Your task to perform on an android device: Go to eBay Image 0: 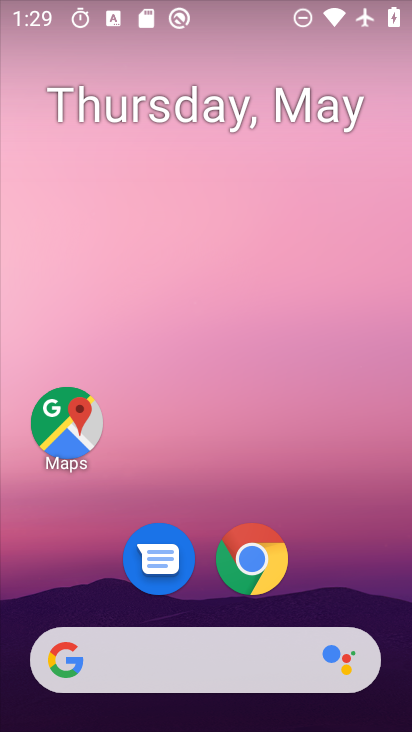
Step 0: click (261, 559)
Your task to perform on an android device: Go to eBay Image 1: 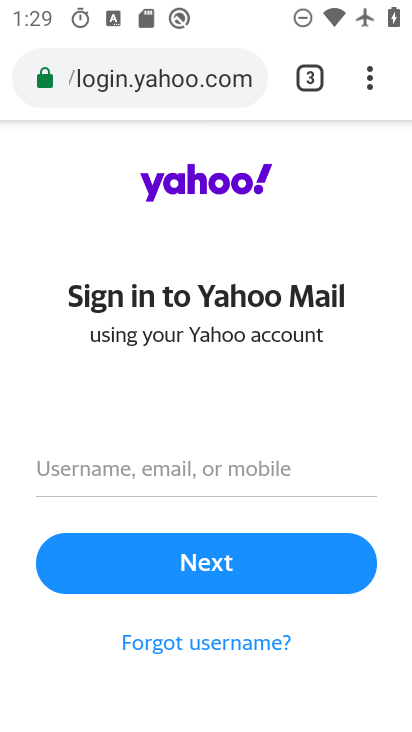
Step 1: click (193, 73)
Your task to perform on an android device: Go to eBay Image 2: 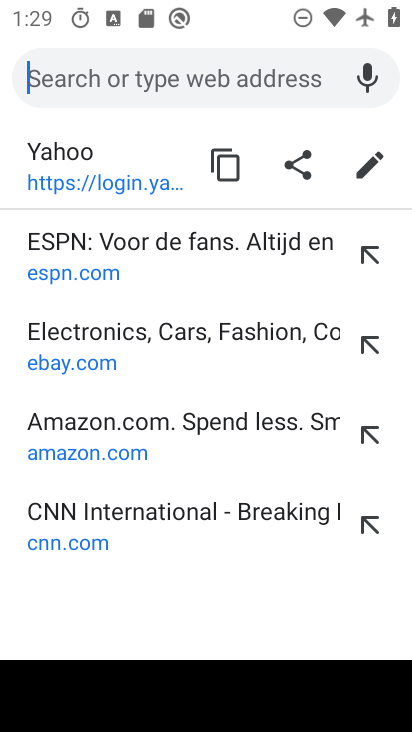
Step 2: click (250, 348)
Your task to perform on an android device: Go to eBay Image 3: 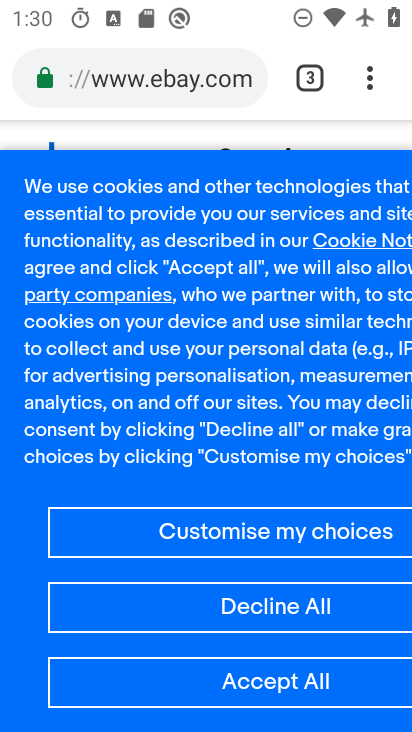
Step 3: task complete